Your task to perform on an android device: allow notifications from all sites in the chrome app Image 0: 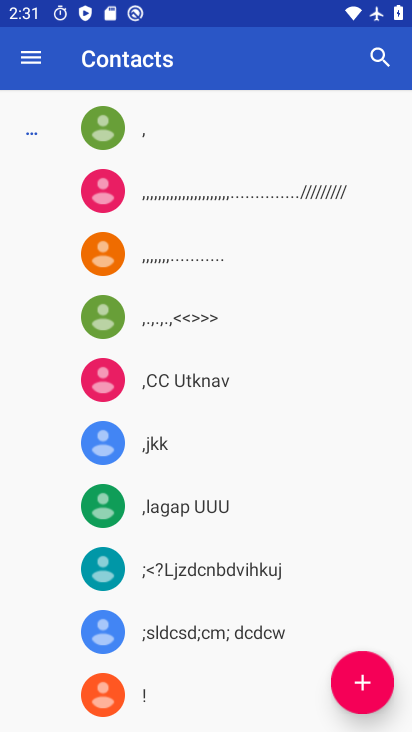
Step 0: press home button
Your task to perform on an android device: allow notifications from all sites in the chrome app Image 1: 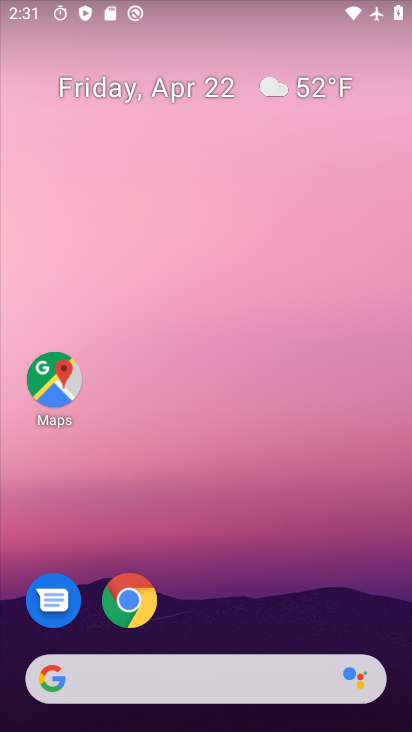
Step 1: click (131, 606)
Your task to perform on an android device: allow notifications from all sites in the chrome app Image 2: 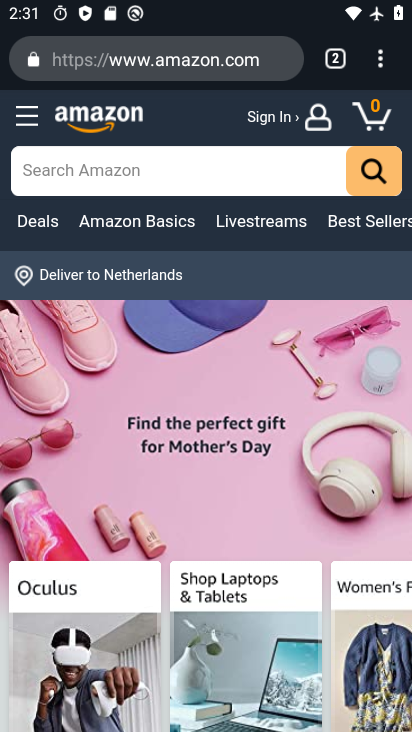
Step 2: drag from (378, 59) to (233, 604)
Your task to perform on an android device: allow notifications from all sites in the chrome app Image 3: 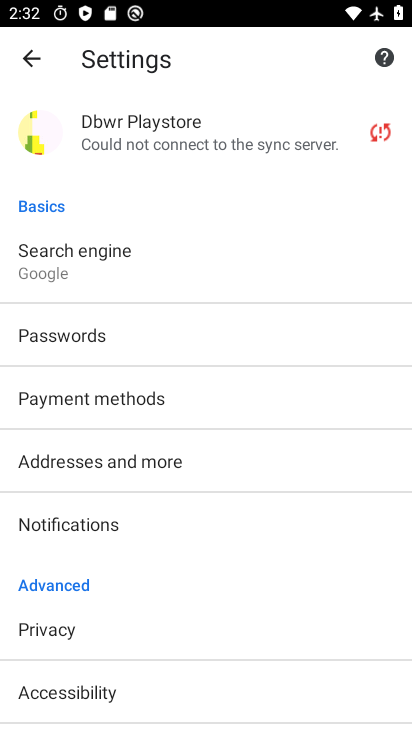
Step 3: drag from (171, 692) to (182, 278)
Your task to perform on an android device: allow notifications from all sites in the chrome app Image 4: 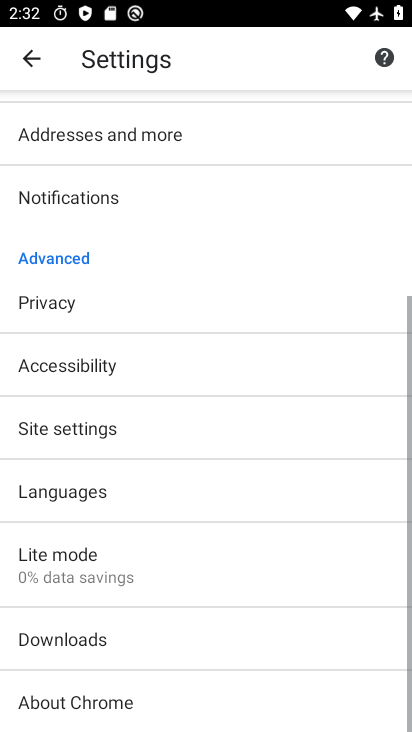
Step 4: click (94, 422)
Your task to perform on an android device: allow notifications from all sites in the chrome app Image 5: 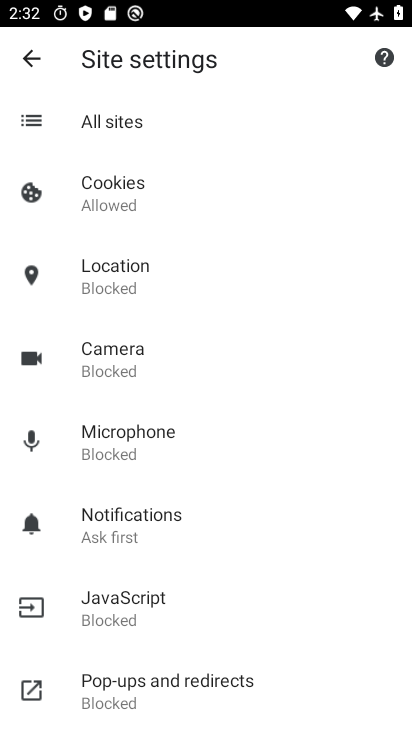
Step 5: click (127, 517)
Your task to perform on an android device: allow notifications from all sites in the chrome app Image 6: 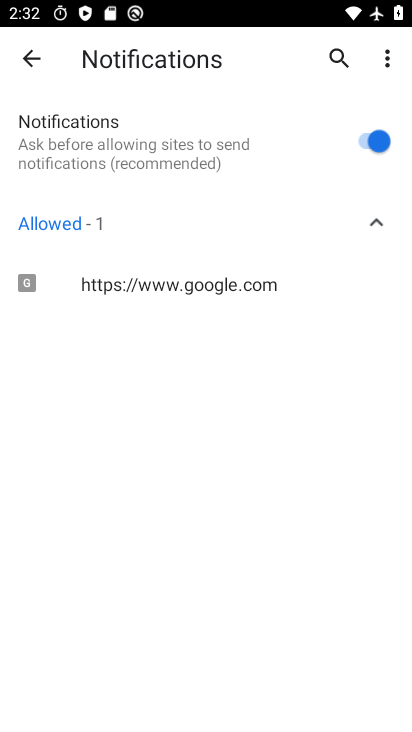
Step 6: task complete